Your task to perform on an android device: toggle sleep mode Image 0: 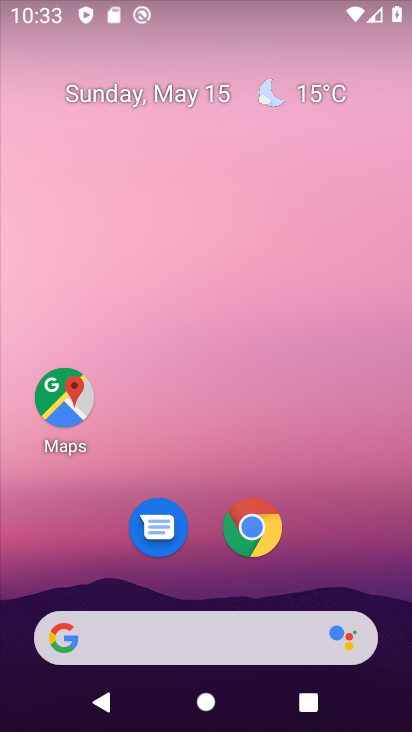
Step 0: drag from (309, 562) to (247, 10)
Your task to perform on an android device: toggle sleep mode Image 1: 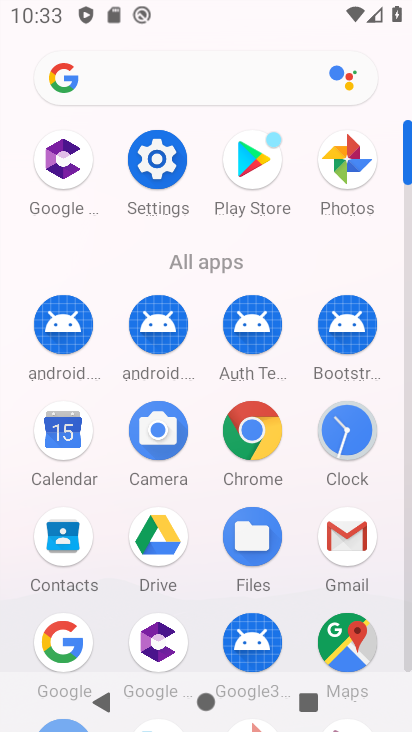
Step 1: click (156, 162)
Your task to perform on an android device: toggle sleep mode Image 2: 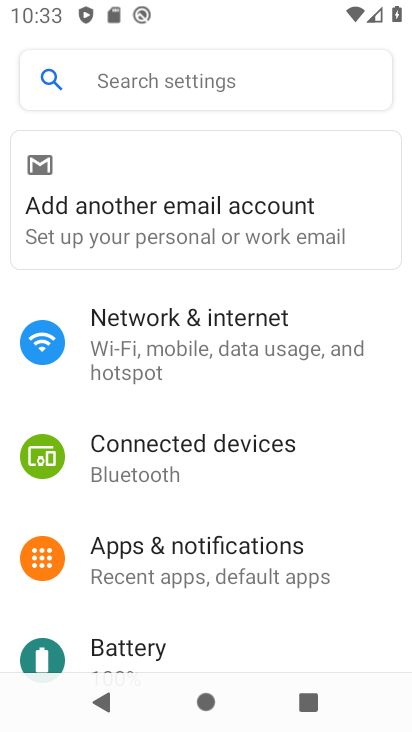
Step 2: drag from (194, 509) to (236, 409)
Your task to perform on an android device: toggle sleep mode Image 3: 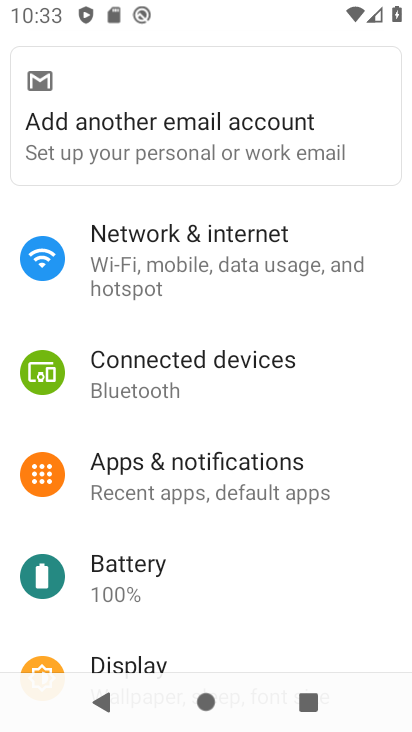
Step 3: drag from (220, 596) to (242, 401)
Your task to perform on an android device: toggle sleep mode Image 4: 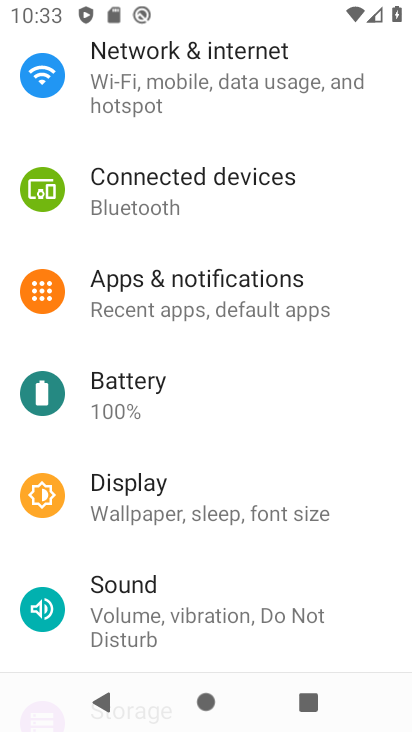
Step 4: click (199, 510)
Your task to perform on an android device: toggle sleep mode Image 5: 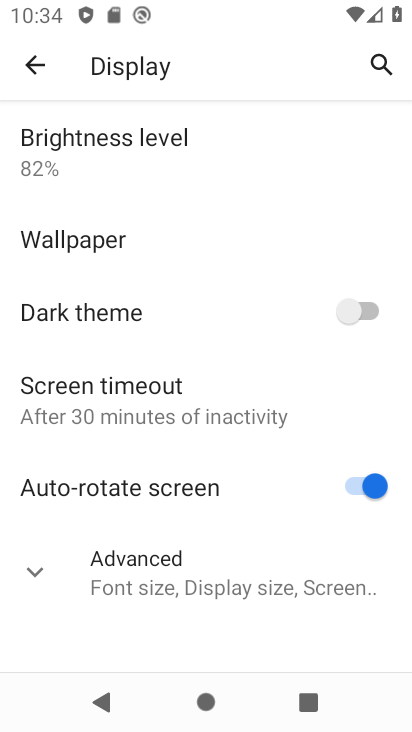
Step 5: click (167, 587)
Your task to perform on an android device: toggle sleep mode Image 6: 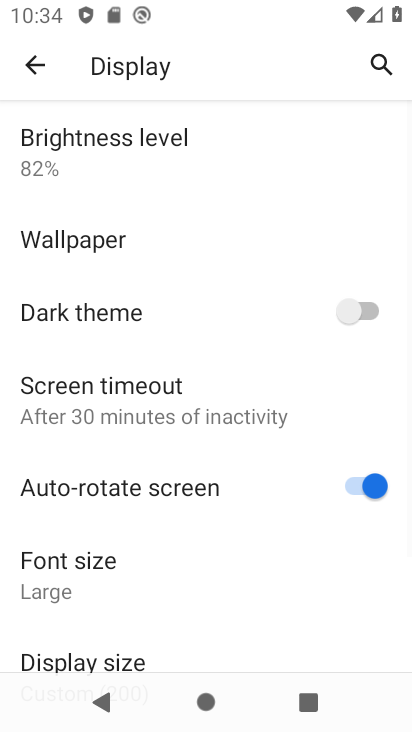
Step 6: task complete